Your task to perform on an android device: add a label to a message in the gmail app Image 0: 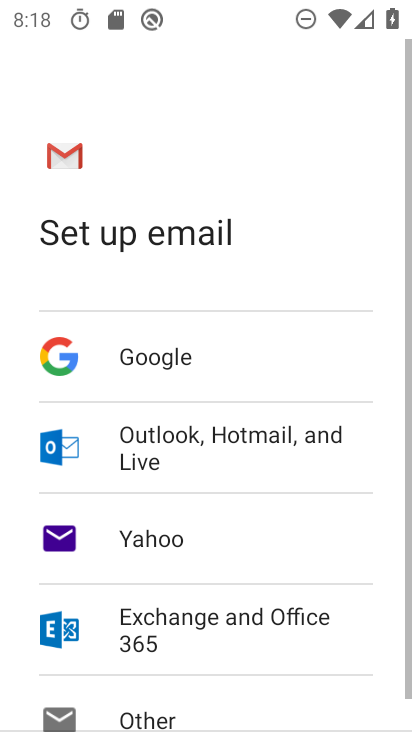
Step 0: press home button
Your task to perform on an android device: add a label to a message in the gmail app Image 1: 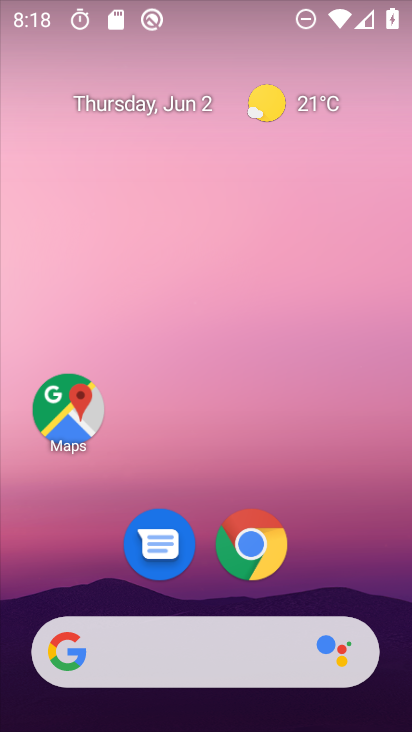
Step 1: drag from (379, 601) to (289, 361)
Your task to perform on an android device: add a label to a message in the gmail app Image 2: 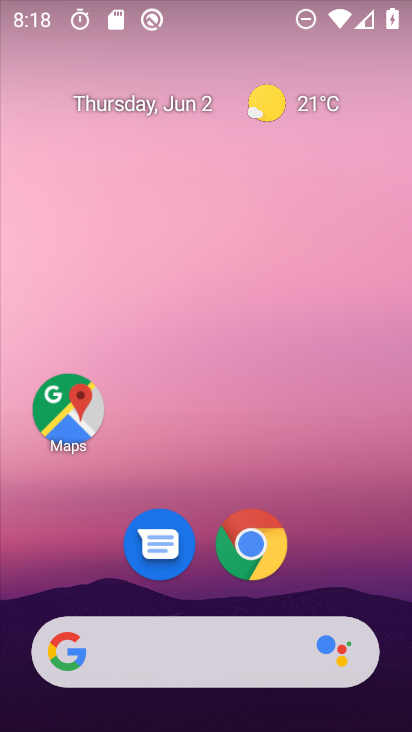
Step 2: drag from (363, 557) to (332, 184)
Your task to perform on an android device: add a label to a message in the gmail app Image 3: 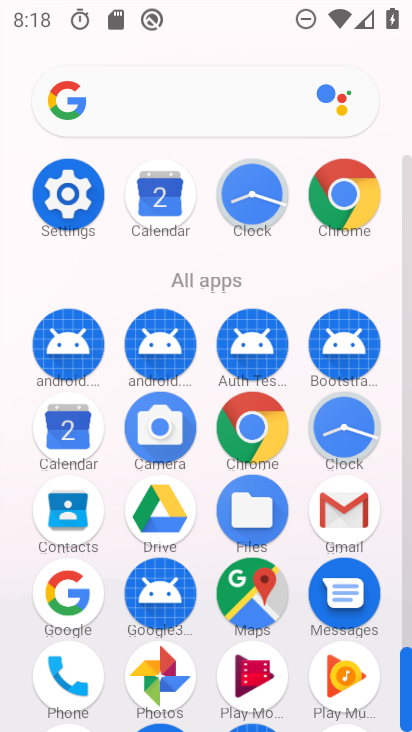
Step 3: click (349, 527)
Your task to perform on an android device: add a label to a message in the gmail app Image 4: 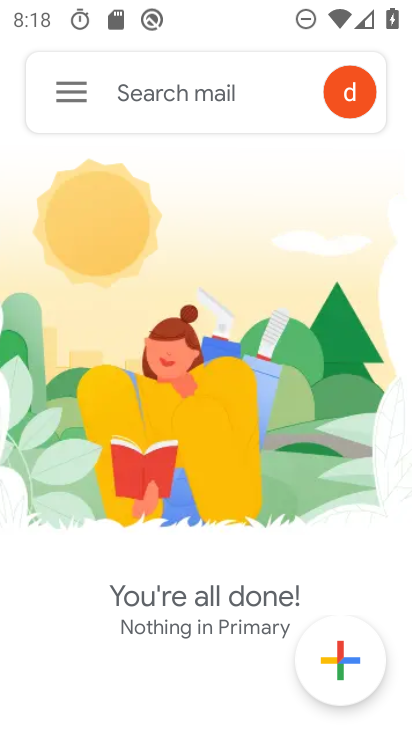
Step 4: task complete